Your task to perform on an android device: set the timer Image 0: 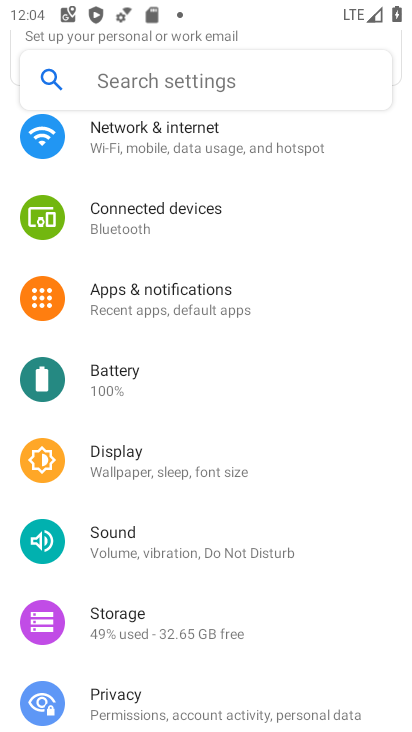
Step 0: press home button
Your task to perform on an android device: set the timer Image 1: 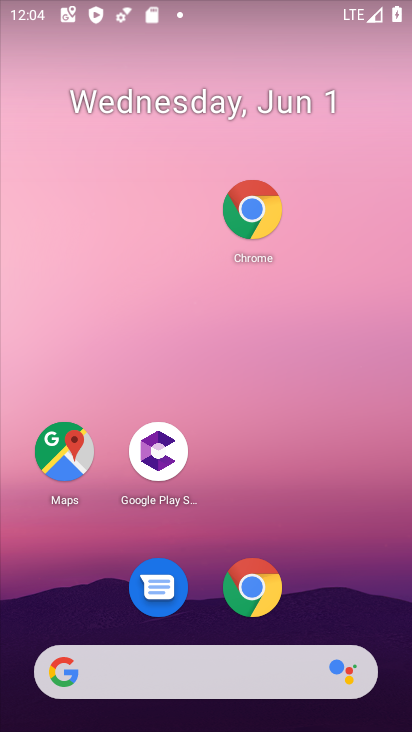
Step 1: drag from (336, 566) to (320, 235)
Your task to perform on an android device: set the timer Image 2: 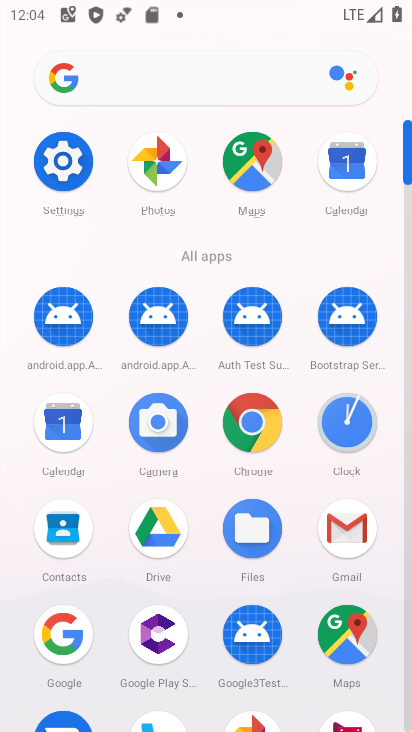
Step 2: click (345, 404)
Your task to perform on an android device: set the timer Image 3: 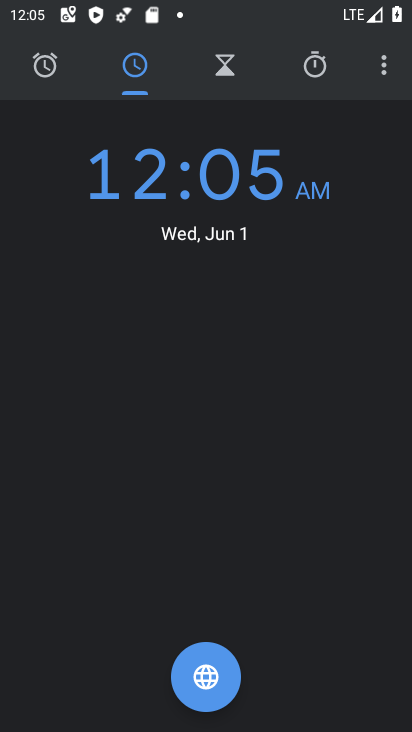
Step 3: click (236, 83)
Your task to perform on an android device: set the timer Image 4: 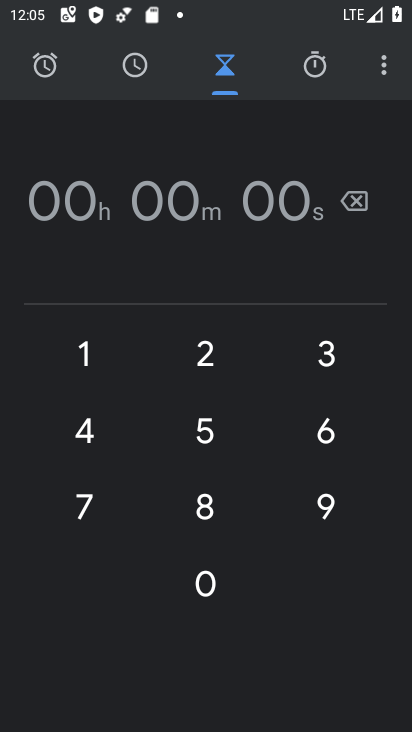
Step 4: click (191, 363)
Your task to perform on an android device: set the timer Image 5: 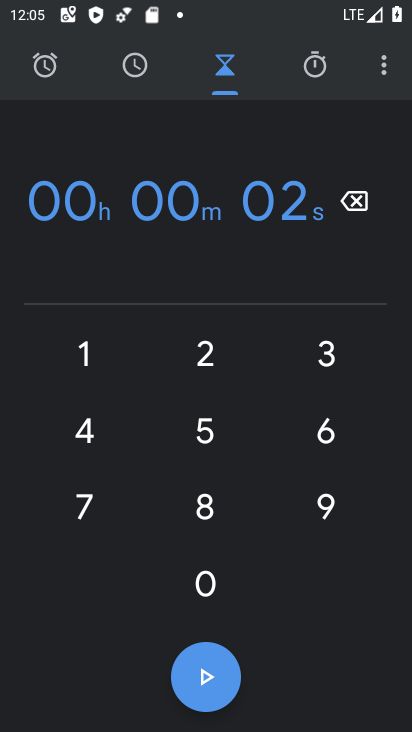
Step 5: click (216, 421)
Your task to perform on an android device: set the timer Image 6: 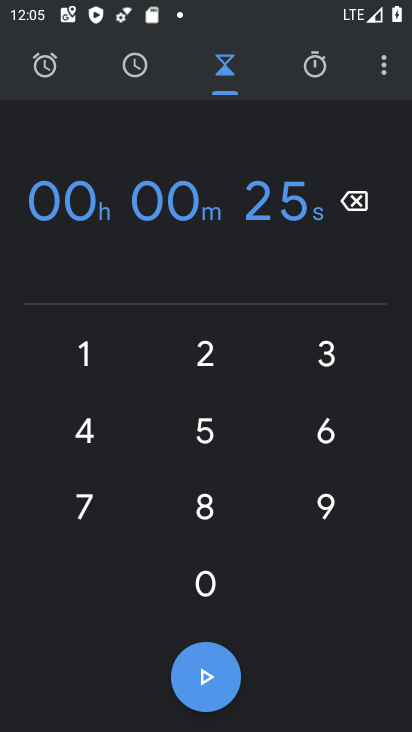
Step 6: task complete